Your task to perform on an android device: delete location history Image 0: 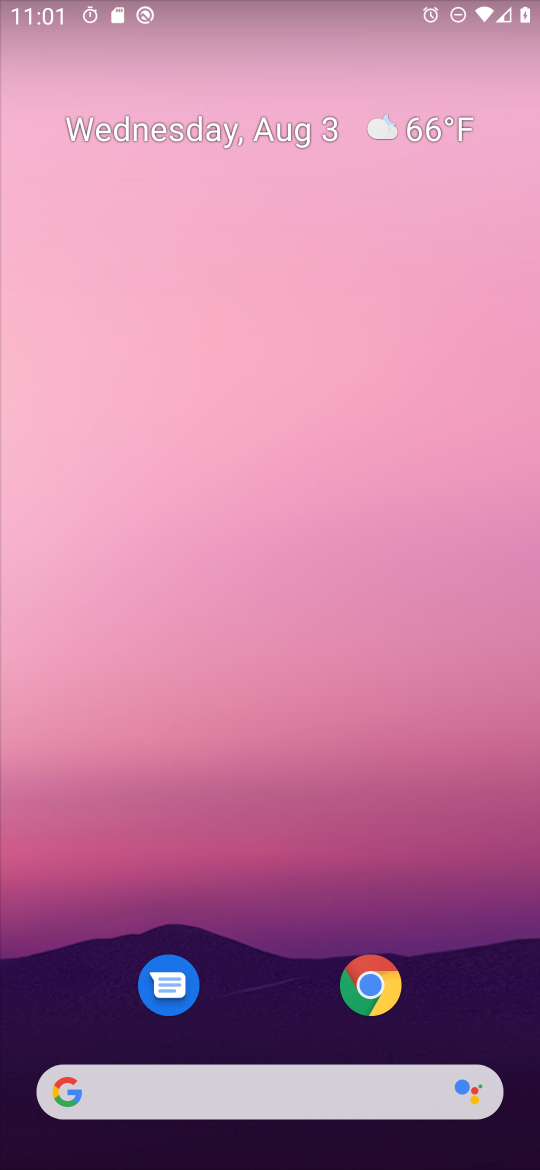
Step 0: drag from (251, 938) to (251, 331)
Your task to perform on an android device: delete location history Image 1: 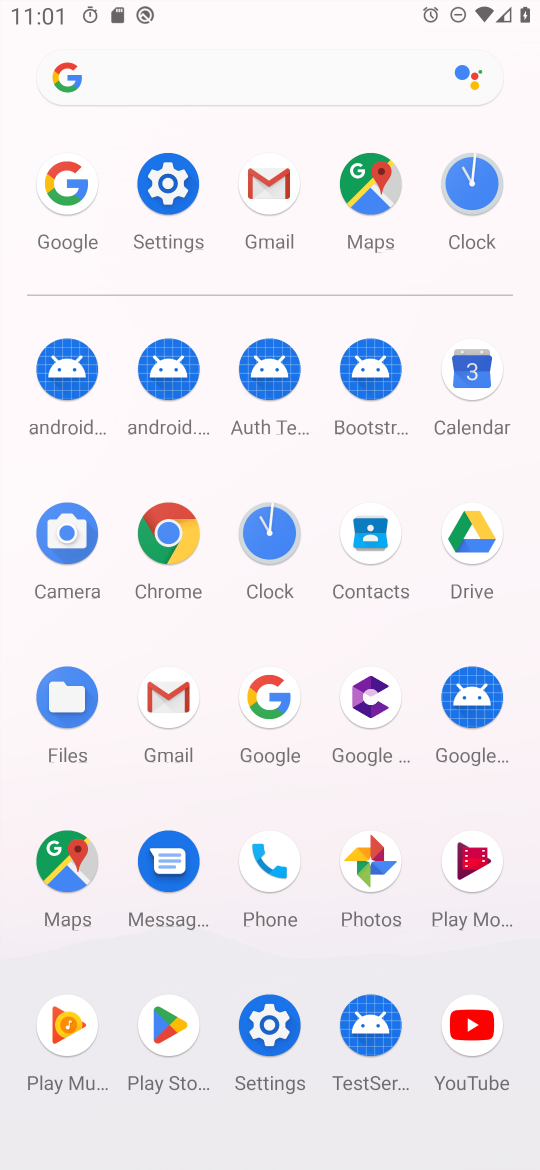
Step 1: click (334, 219)
Your task to perform on an android device: delete location history Image 2: 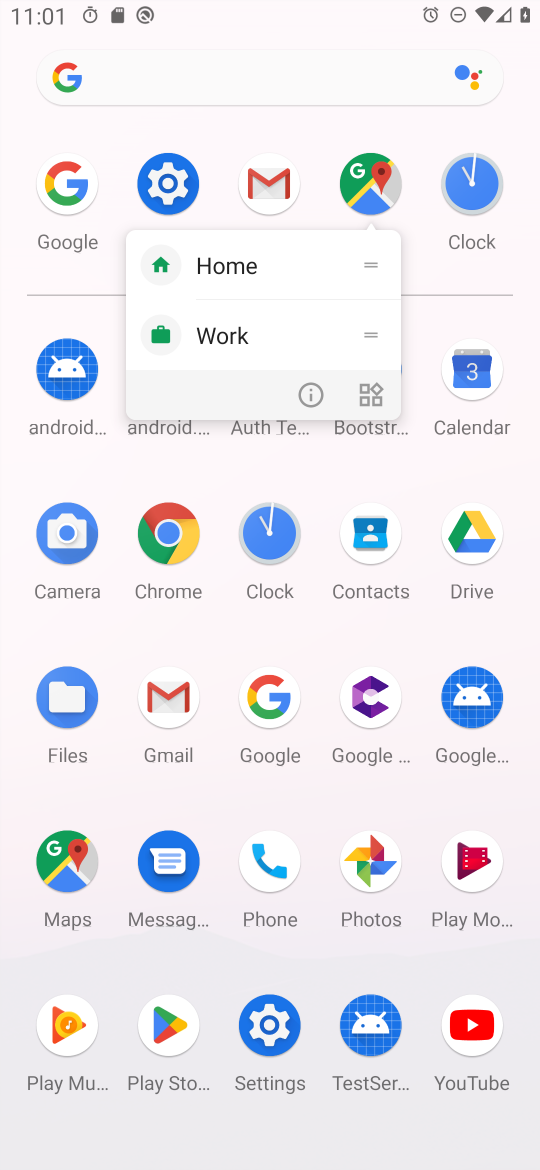
Step 2: click (387, 168)
Your task to perform on an android device: delete location history Image 3: 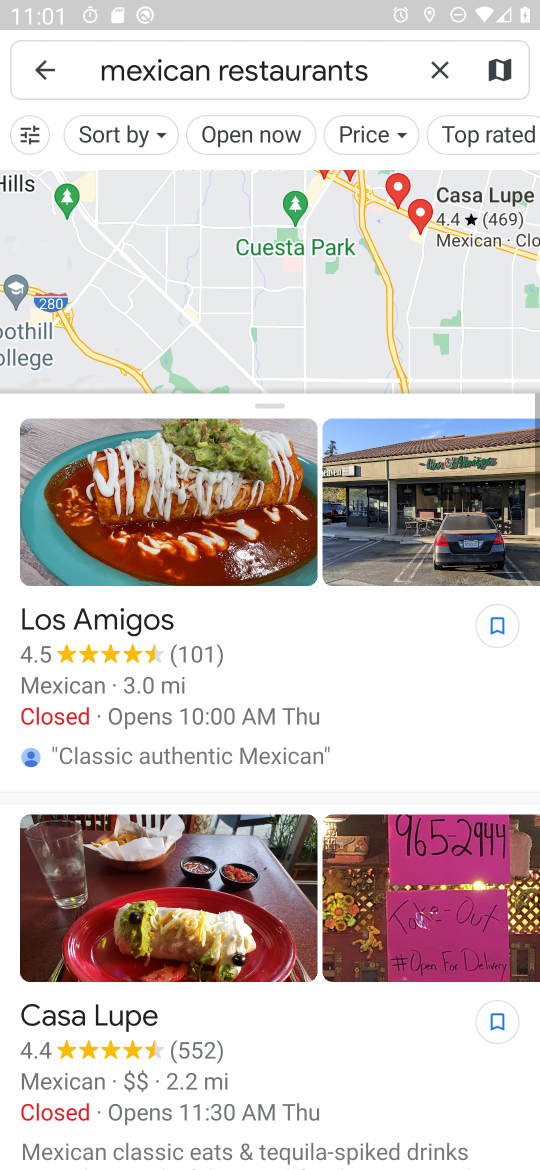
Step 3: click (46, 79)
Your task to perform on an android device: delete location history Image 4: 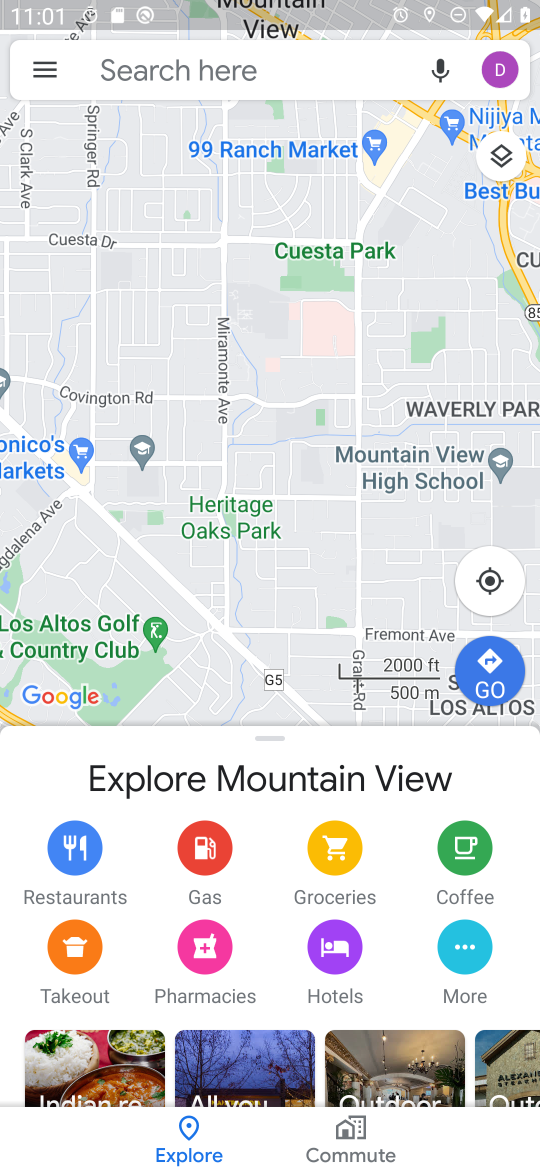
Step 4: click (53, 74)
Your task to perform on an android device: delete location history Image 5: 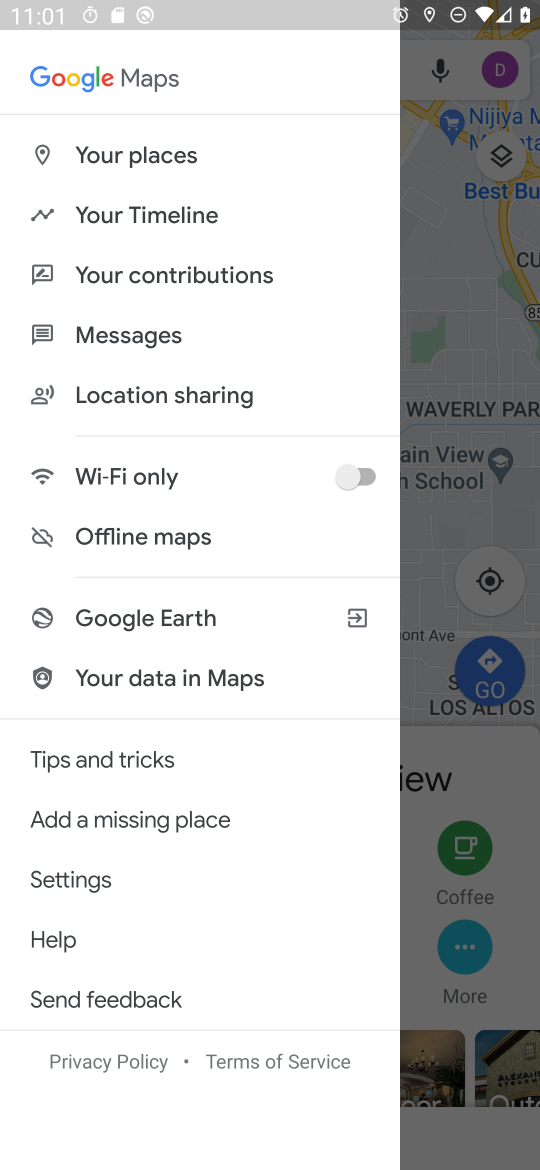
Step 5: click (166, 212)
Your task to perform on an android device: delete location history Image 6: 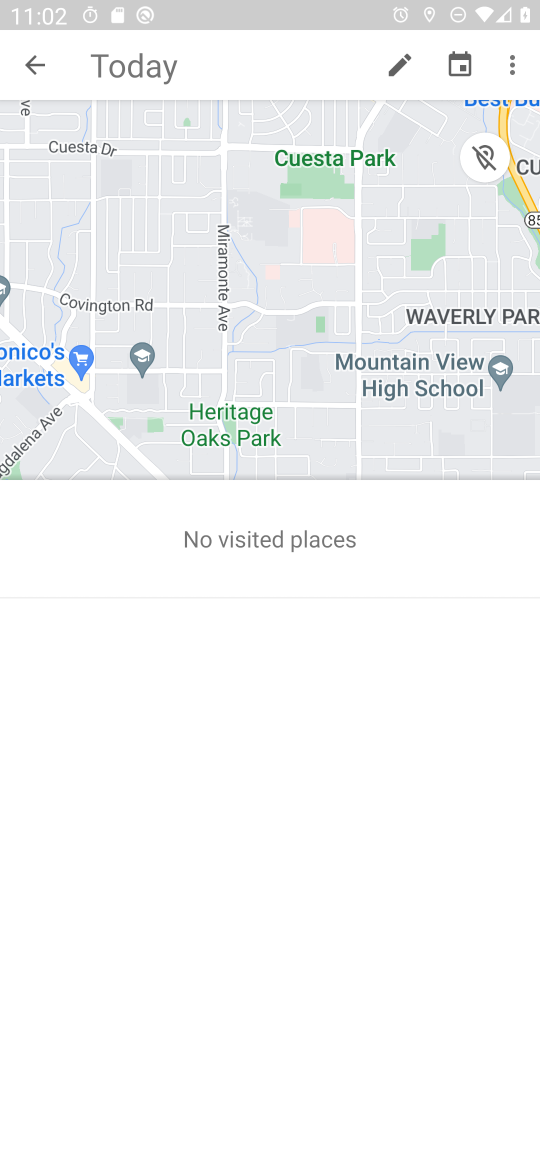
Step 6: click (518, 73)
Your task to perform on an android device: delete location history Image 7: 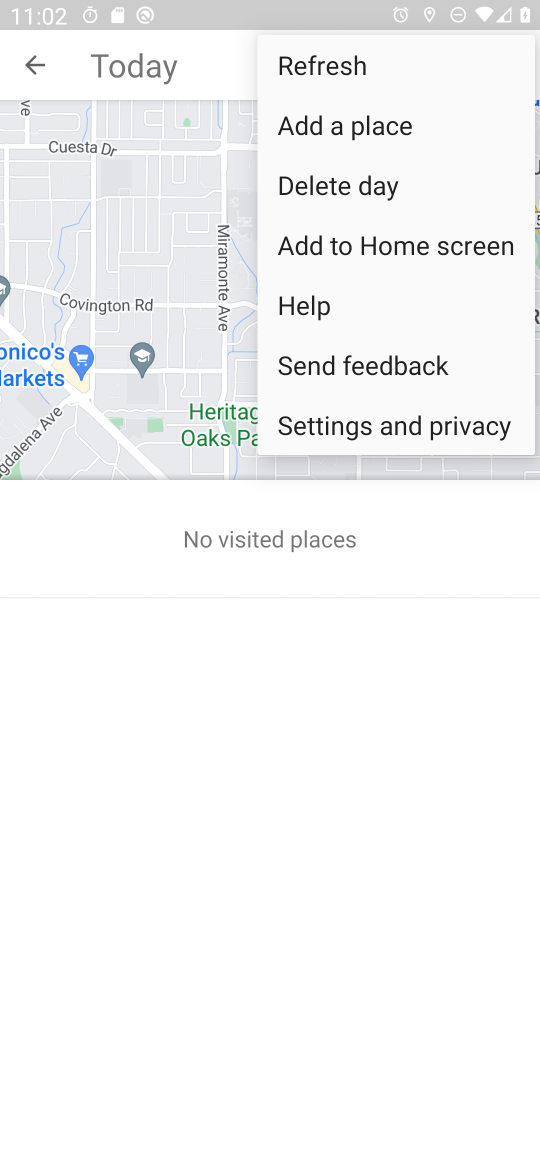
Step 7: click (375, 424)
Your task to perform on an android device: delete location history Image 8: 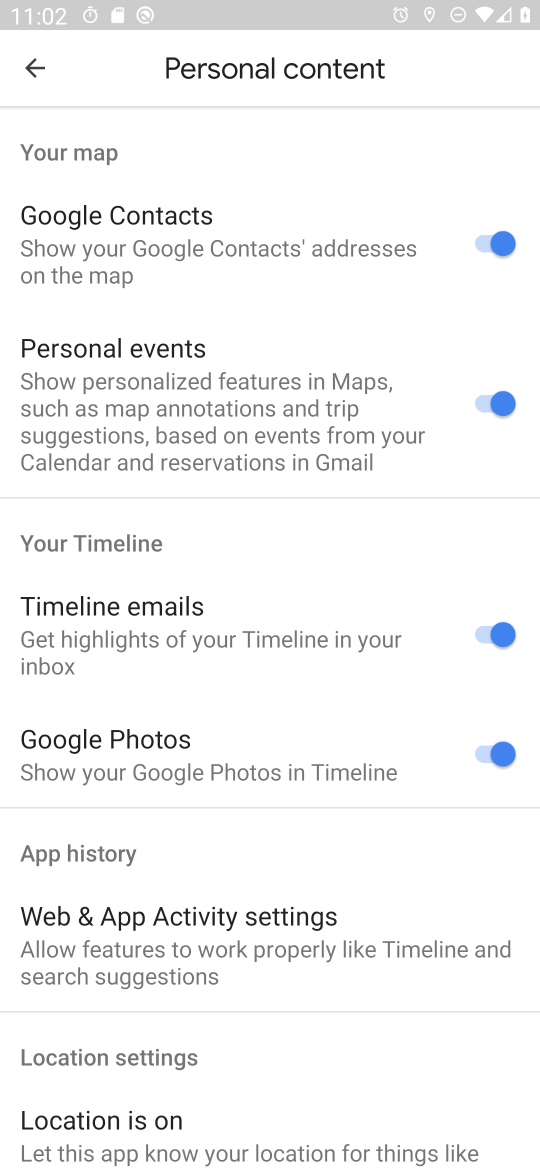
Step 8: drag from (358, 982) to (362, 334)
Your task to perform on an android device: delete location history Image 9: 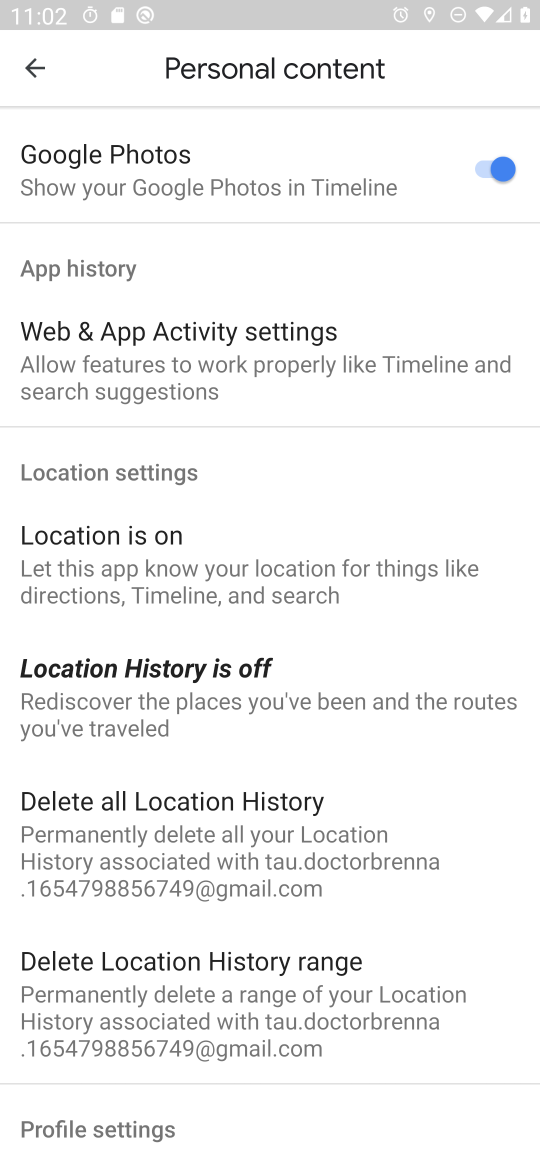
Step 9: click (330, 796)
Your task to perform on an android device: delete location history Image 10: 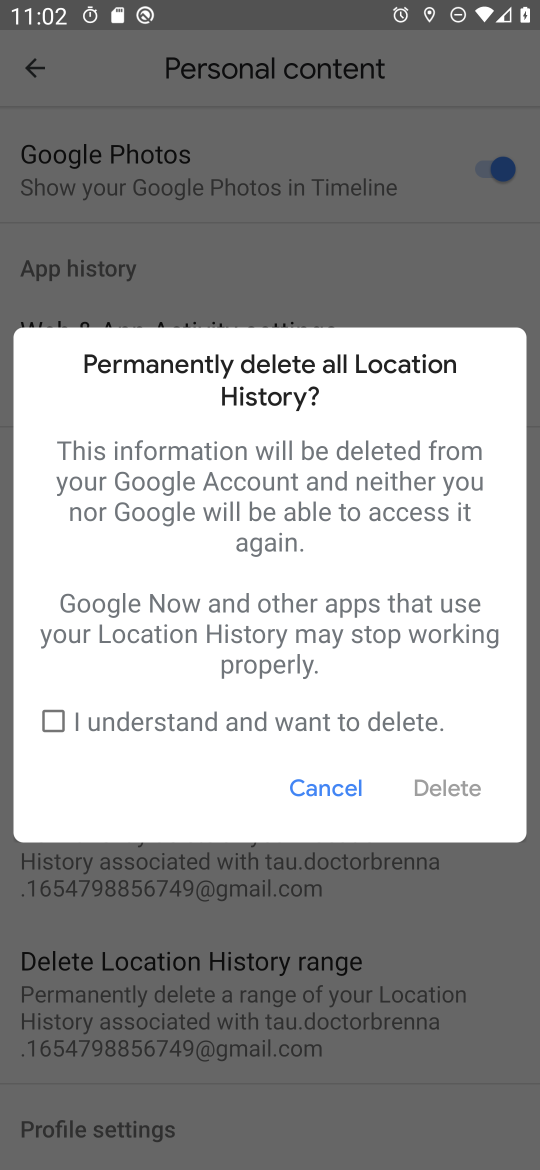
Step 10: click (355, 711)
Your task to perform on an android device: delete location history Image 11: 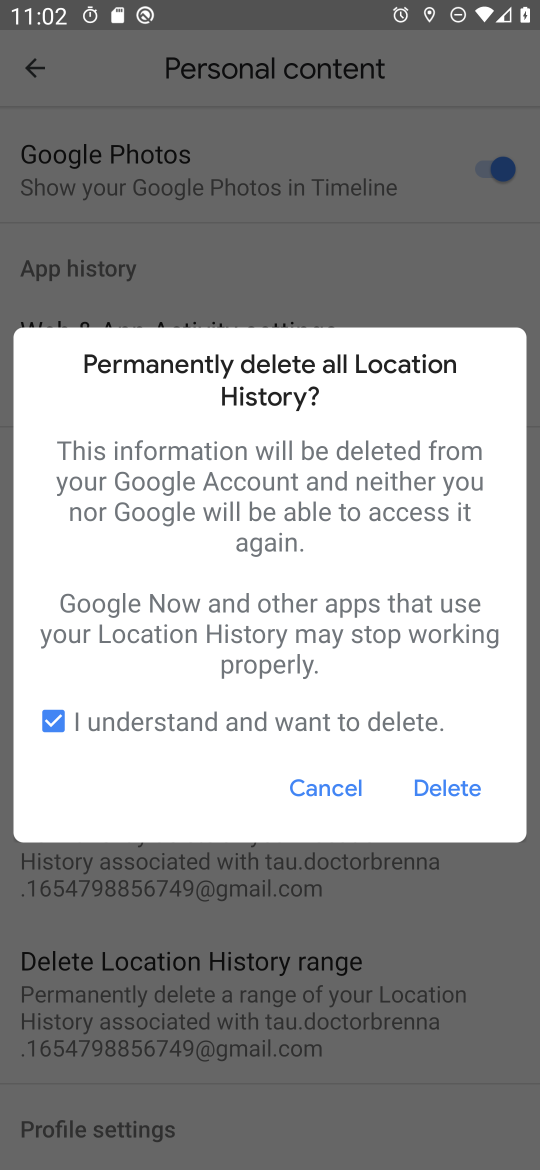
Step 11: click (439, 795)
Your task to perform on an android device: delete location history Image 12: 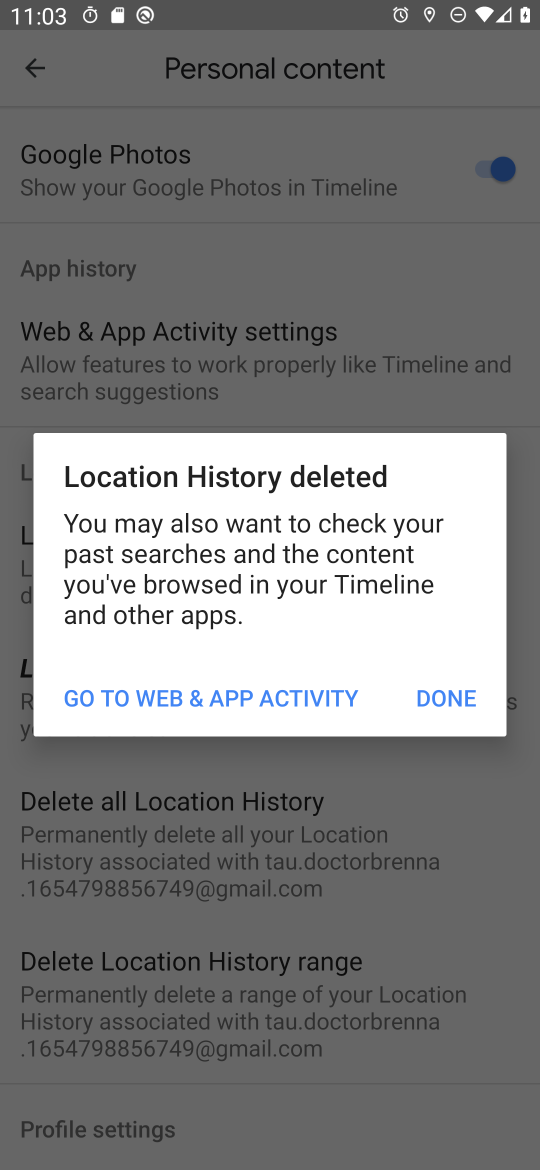
Step 12: click (446, 693)
Your task to perform on an android device: delete location history Image 13: 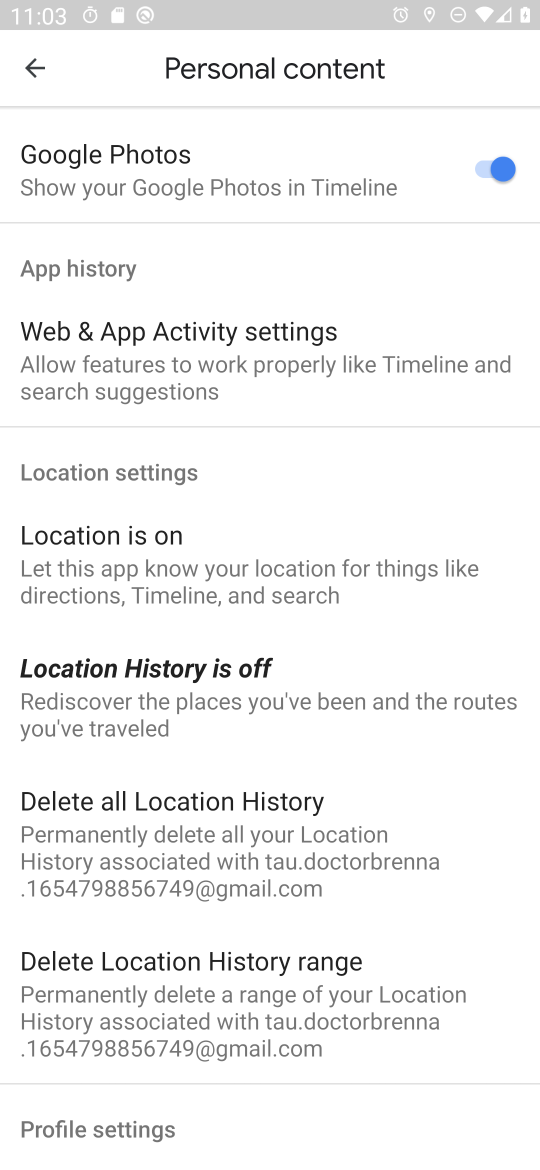
Step 13: task complete